Your task to perform on an android device: change the clock display to digital Image 0: 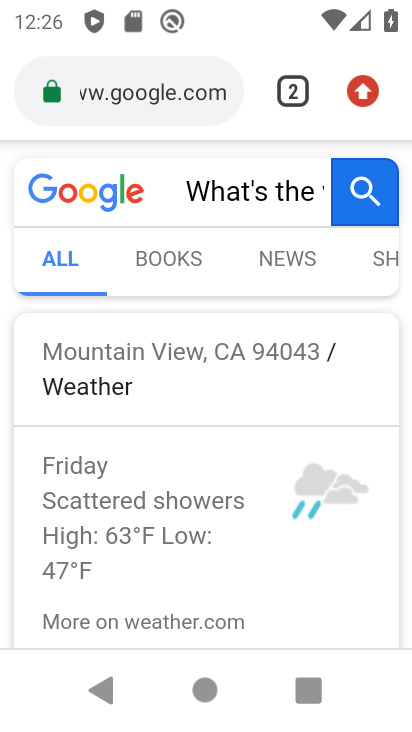
Step 0: press home button
Your task to perform on an android device: change the clock display to digital Image 1: 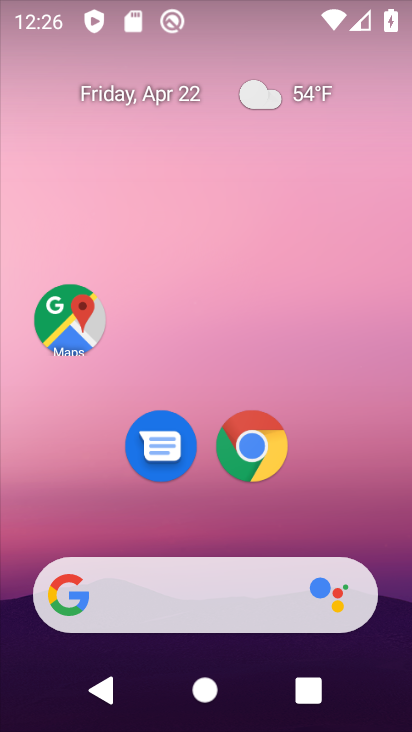
Step 1: drag from (338, 505) to (360, 152)
Your task to perform on an android device: change the clock display to digital Image 2: 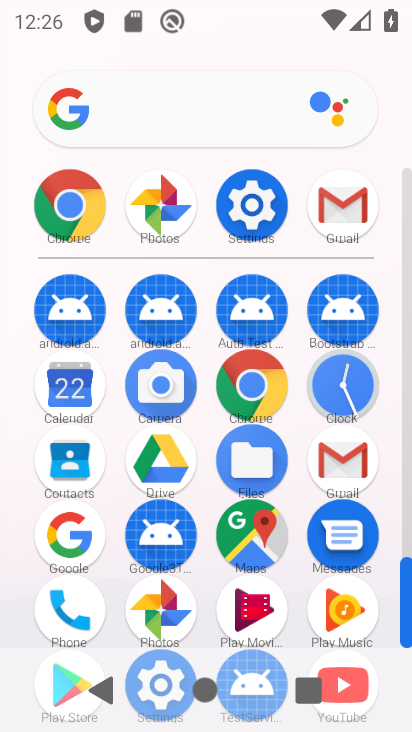
Step 2: click (353, 390)
Your task to perform on an android device: change the clock display to digital Image 3: 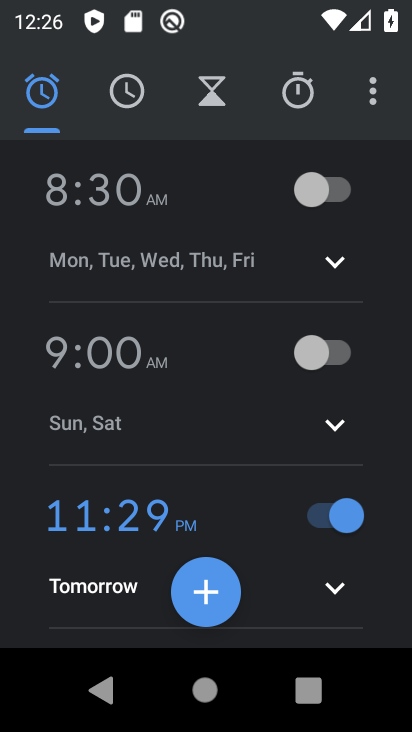
Step 3: click (362, 90)
Your task to perform on an android device: change the clock display to digital Image 4: 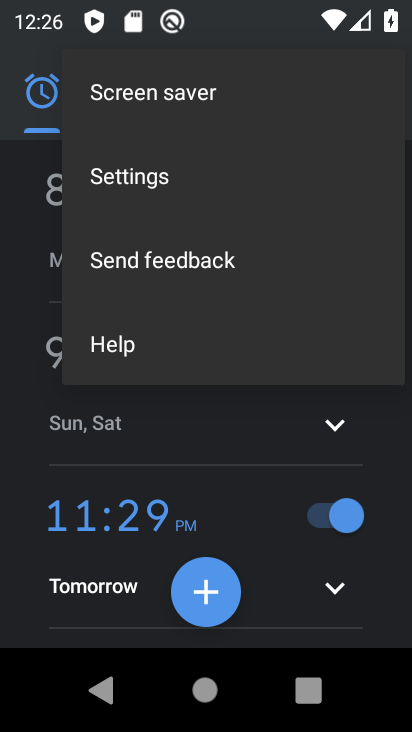
Step 4: click (244, 172)
Your task to perform on an android device: change the clock display to digital Image 5: 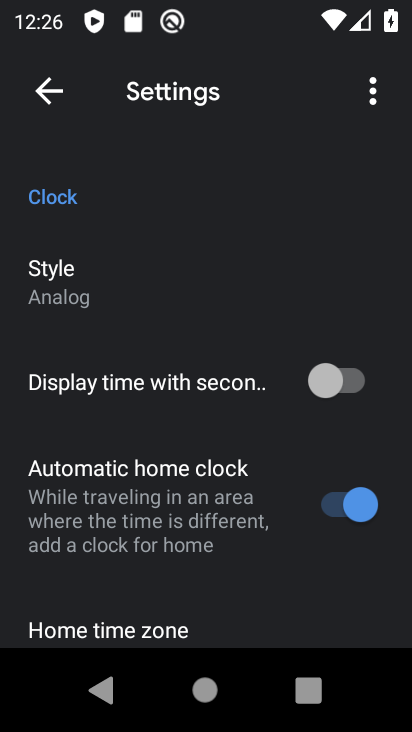
Step 5: click (157, 298)
Your task to perform on an android device: change the clock display to digital Image 6: 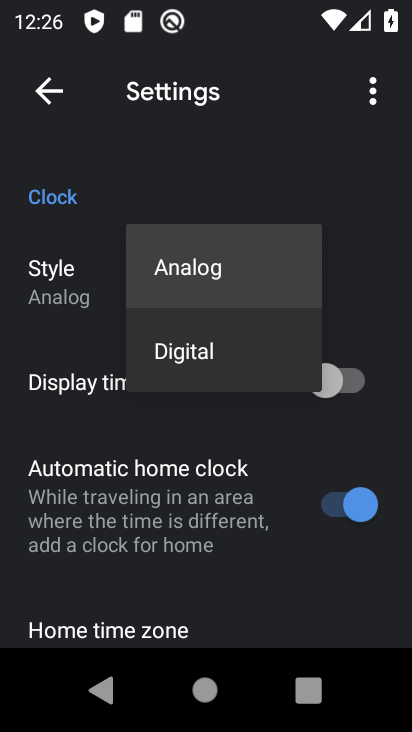
Step 6: click (175, 340)
Your task to perform on an android device: change the clock display to digital Image 7: 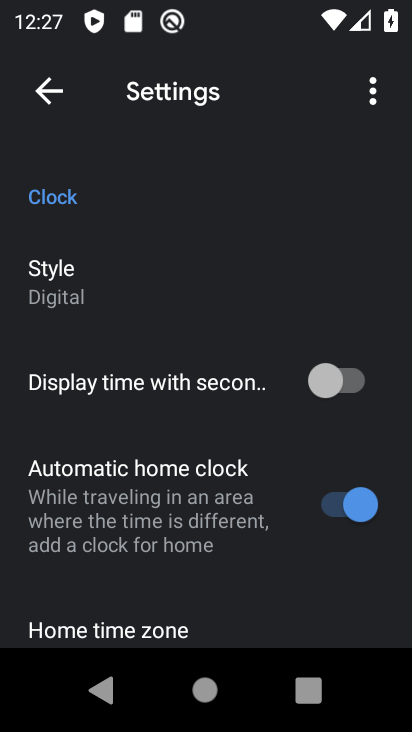
Step 7: task complete